Your task to perform on an android device: Go to Android settings Image 0: 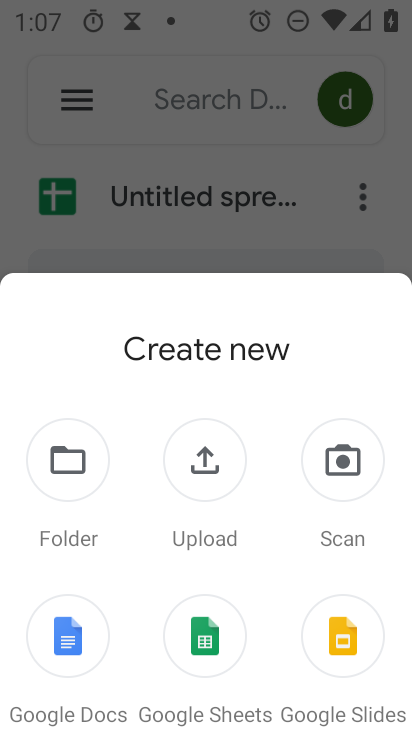
Step 0: press home button
Your task to perform on an android device: Go to Android settings Image 1: 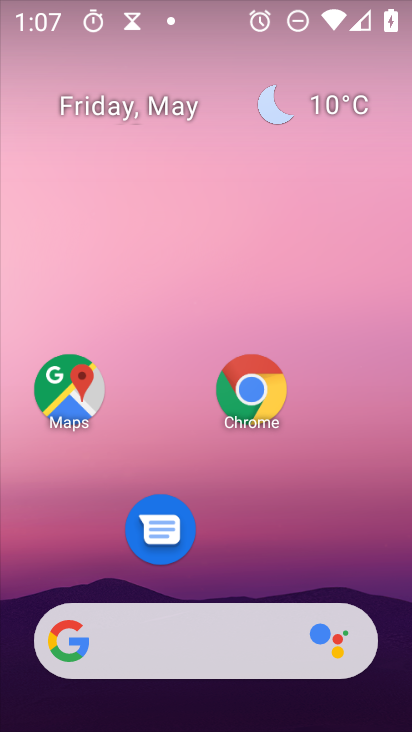
Step 1: drag from (174, 654) to (317, 96)
Your task to perform on an android device: Go to Android settings Image 2: 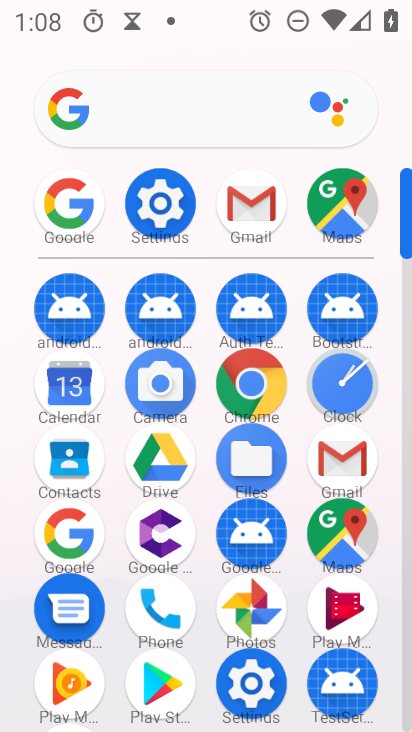
Step 2: click (169, 202)
Your task to perform on an android device: Go to Android settings Image 3: 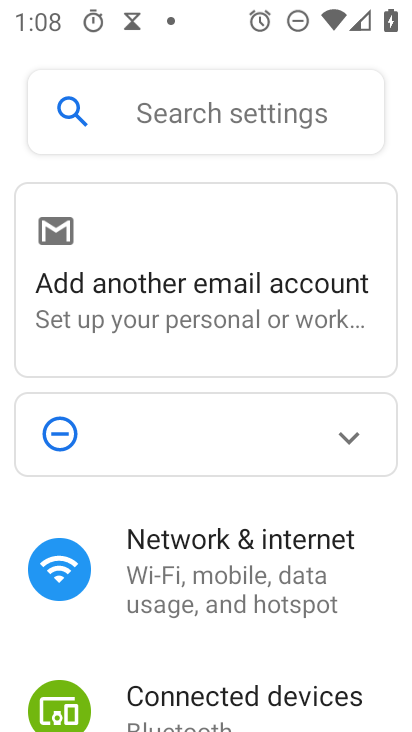
Step 3: task complete